Your task to perform on an android device: Go to display settings Image 0: 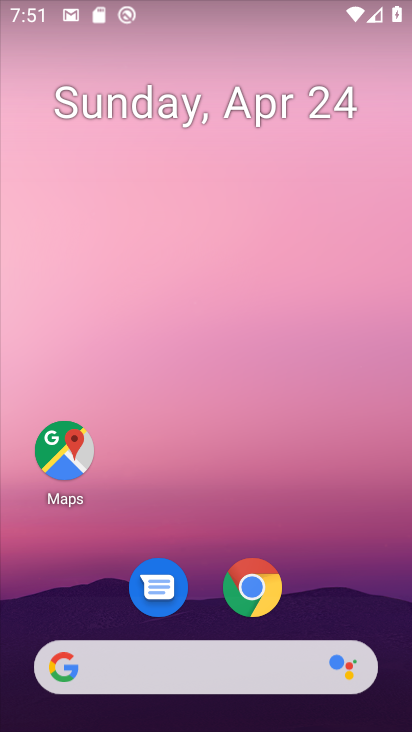
Step 0: drag from (343, 545) to (303, 43)
Your task to perform on an android device: Go to display settings Image 1: 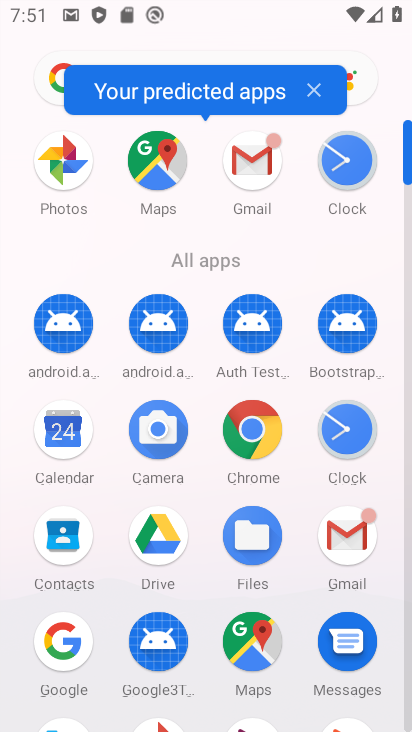
Step 1: drag from (284, 280) to (266, 2)
Your task to perform on an android device: Go to display settings Image 2: 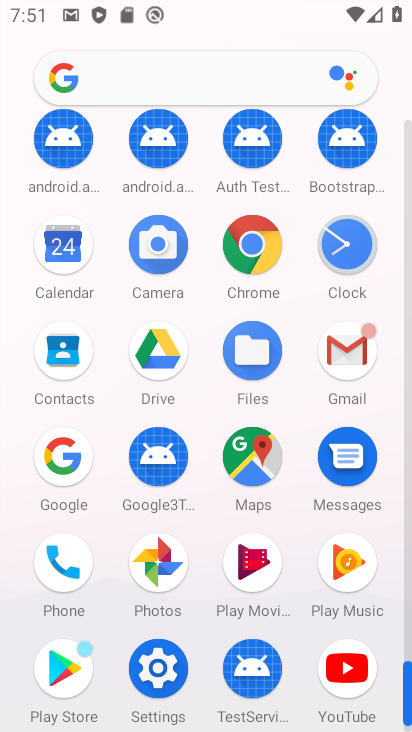
Step 2: click (151, 659)
Your task to perform on an android device: Go to display settings Image 3: 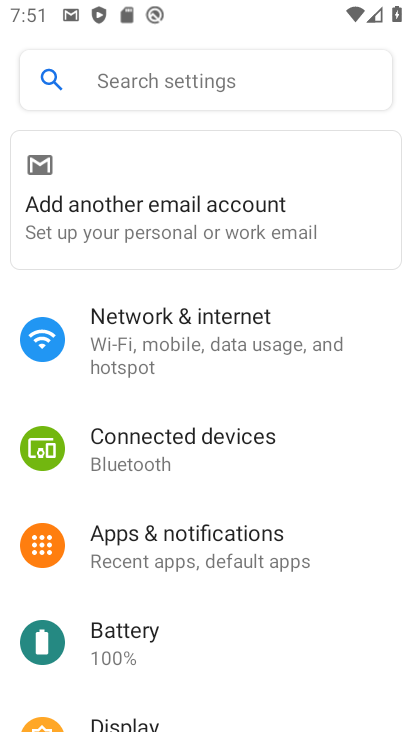
Step 3: click (135, 717)
Your task to perform on an android device: Go to display settings Image 4: 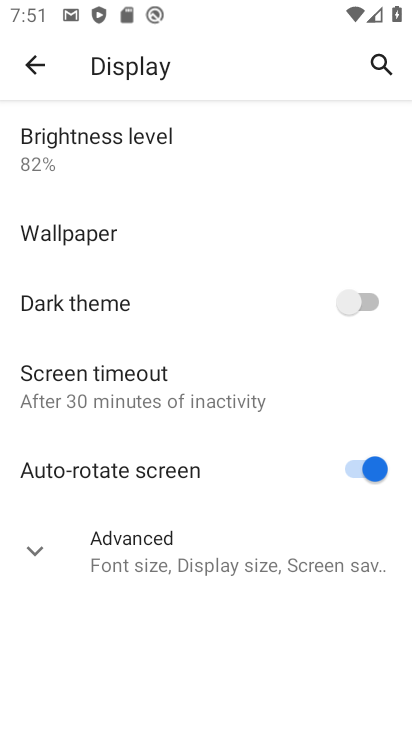
Step 4: task complete